Your task to perform on an android device: turn on showing notifications on the lock screen Image 0: 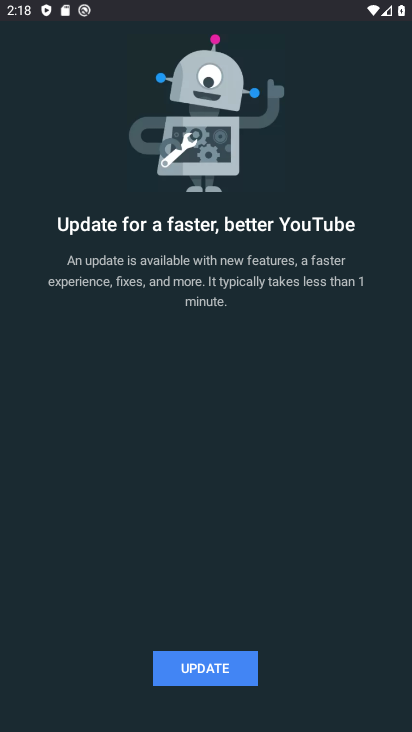
Step 0: press home button
Your task to perform on an android device: turn on showing notifications on the lock screen Image 1: 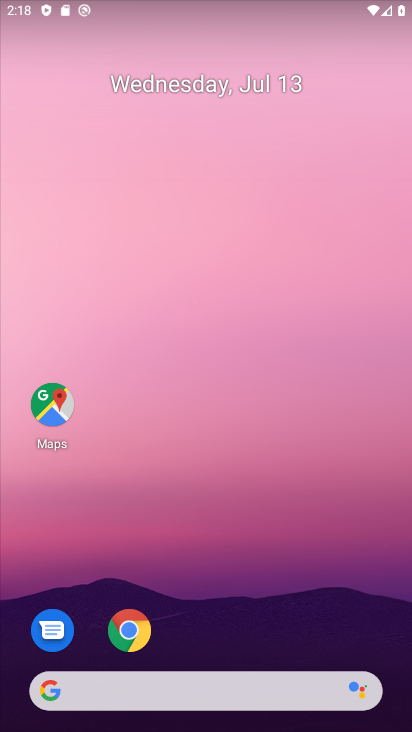
Step 1: drag from (286, 631) to (198, 74)
Your task to perform on an android device: turn on showing notifications on the lock screen Image 2: 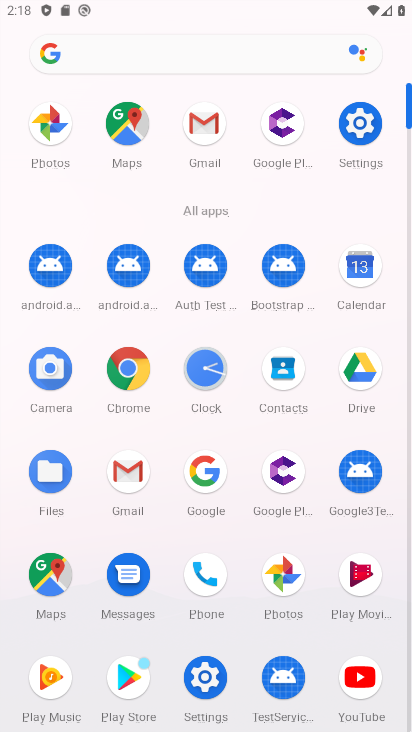
Step 2: click (364, 121)
Your task to perform on an android device: turn on showing notifications on the lock screen Image 3: 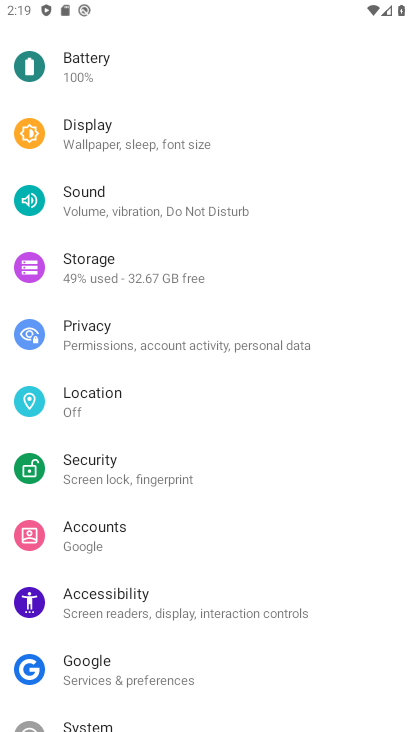
Step 3: drag from (161, 115) to (172, 433)
Your task to perform on an android device: turn on showing notifications on the lock screen Image 4: 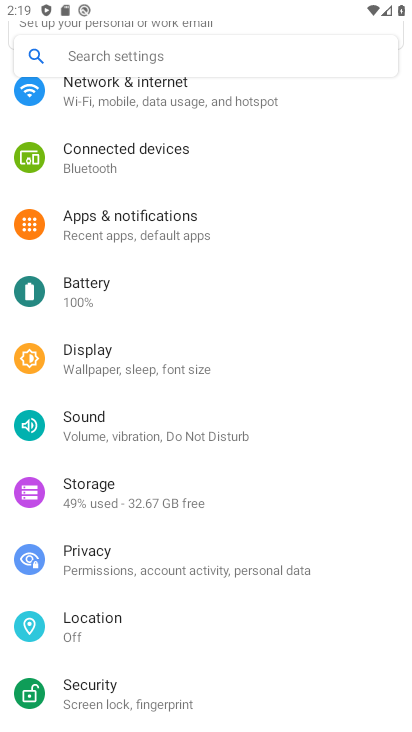
Step 4: click (177, 207)
Your task to perform on an android device: turn on showing notifications on the lock screen Image 5: 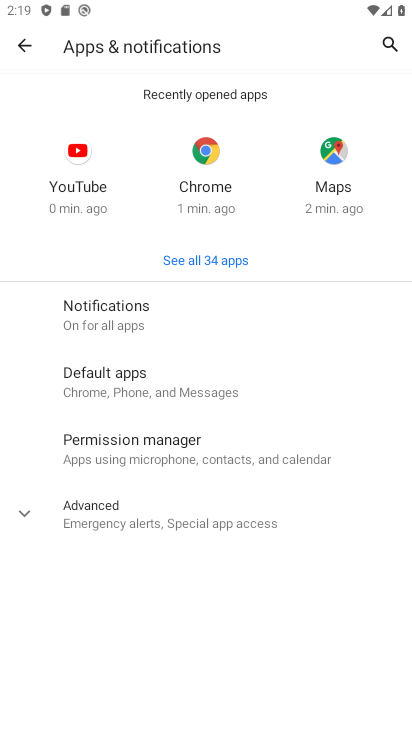
Step 5: click (202, 316)
Your task to perform on an android device: turn on showing notifications on the lock screen Image 6: 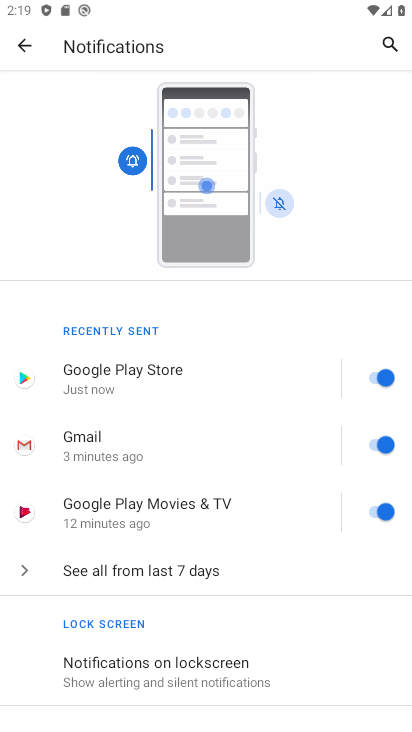
Step 6: click (265, 667)
Your task to perform on an android device: turn on showing notifications on the lock screen Image 7: 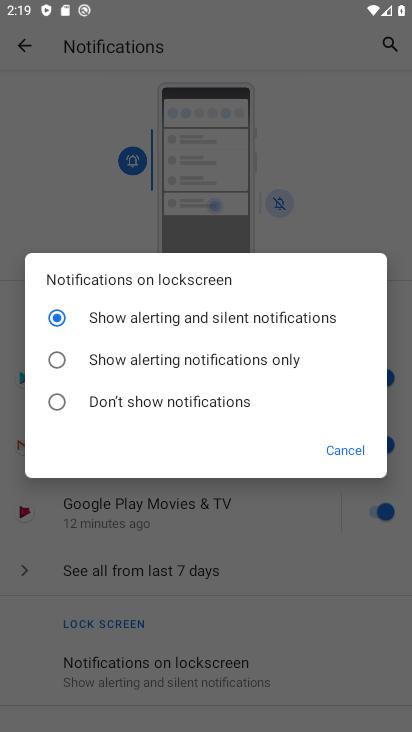
Step 7: task complete